Your task to perform on an android device: turn on airplane mode Image 0: 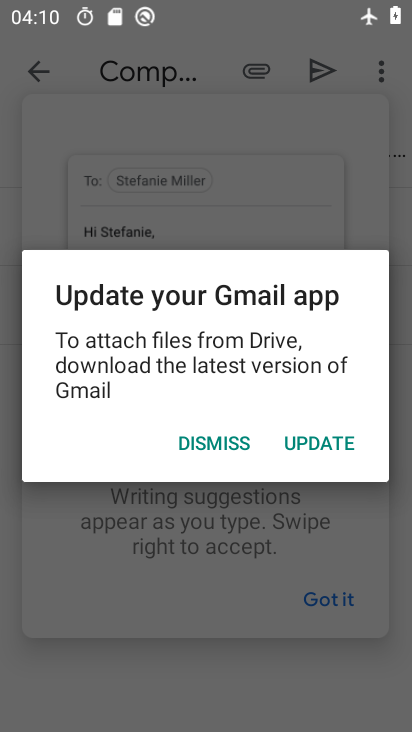
Step 0: press home button
Your task to perform on an android device: turn on airplane mode Image 1: 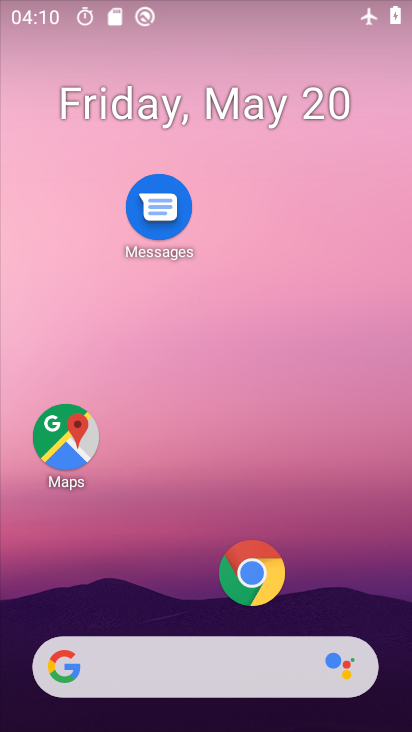
Step 1: drag from (193, 618) to (196, 85)
Your task to perform on an android device: turn on airplane mode Image 2: 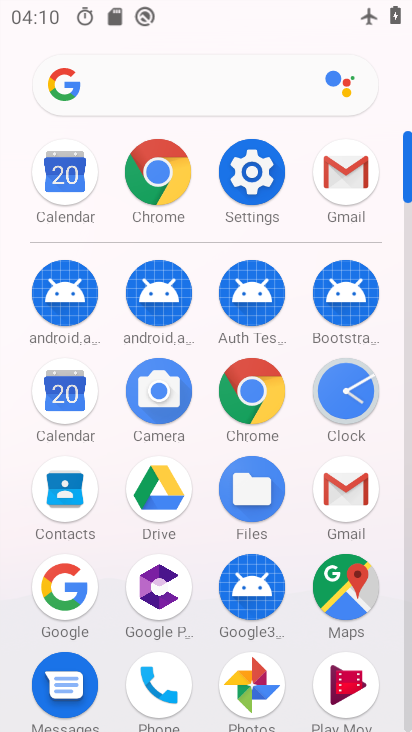
Step 2: click (227, 160)
Your task to perform on an android device: turn on airplane mode Image 3: 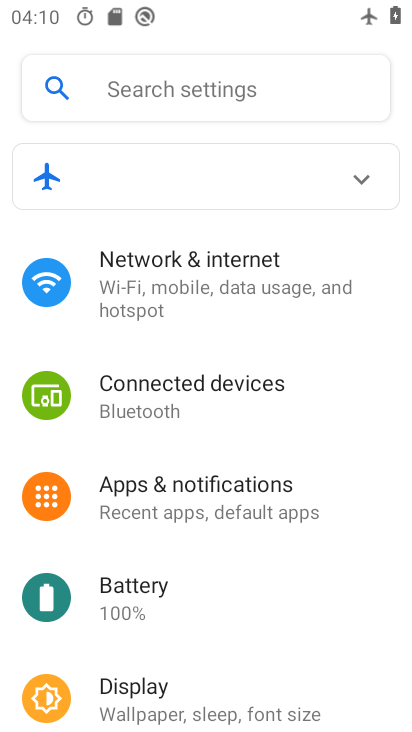
Step 3: click (202, 277)
Your task to perform on an android device: turn on airplane mode Image 4: 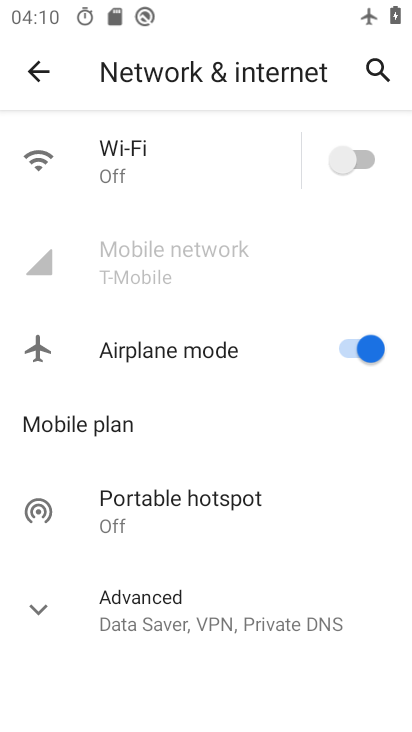
Step 4: task complete